Your task to perform on an android device: Show me productivity apps on the Play Store Image 0: 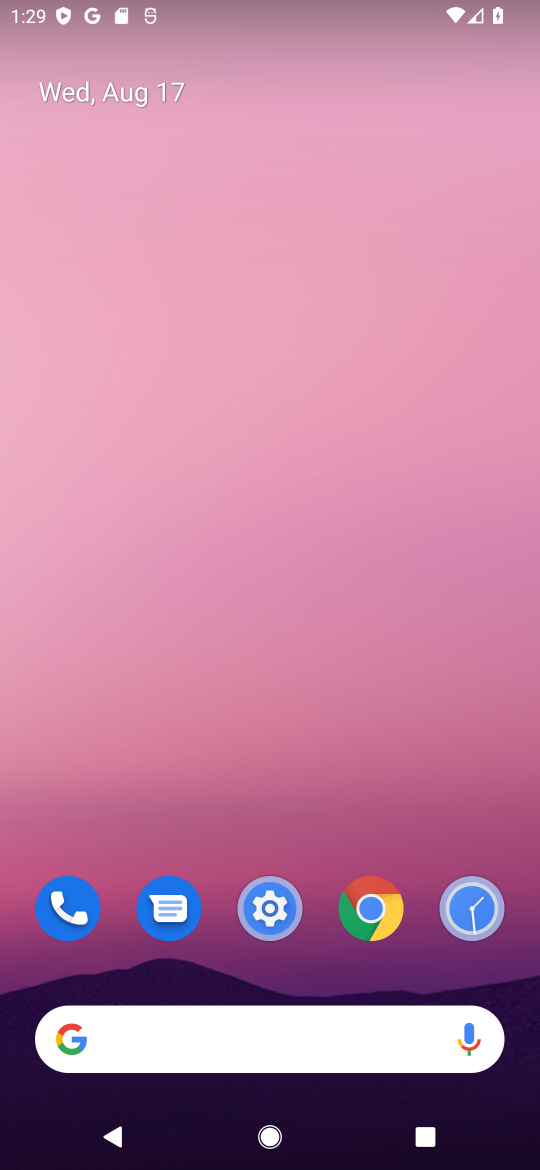
Step 0: press home button
Your task to perform on an android device: Show me productivity apps on the Play Store Image 1: 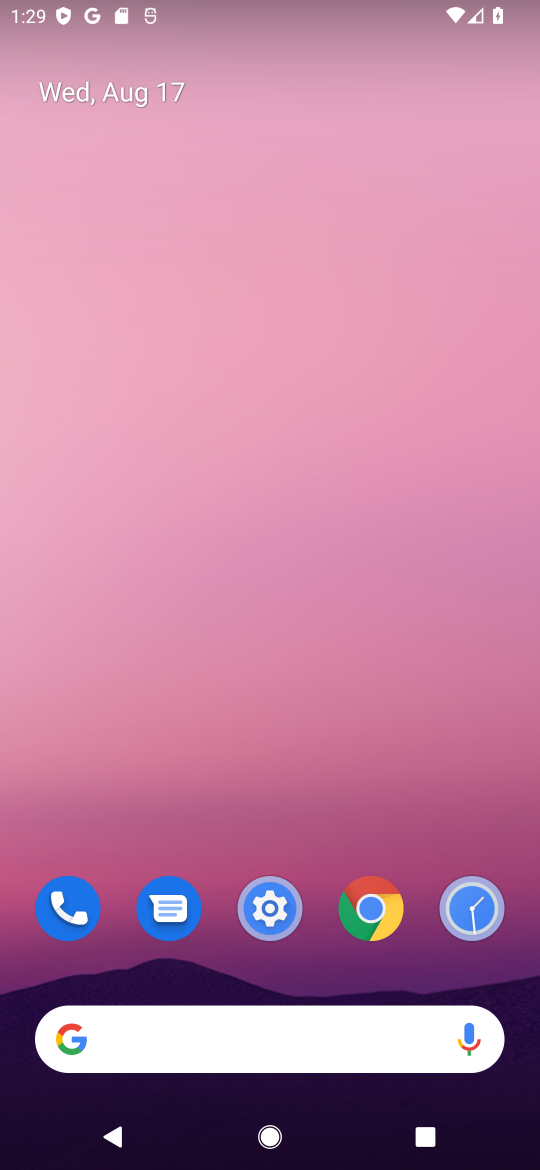
Step 1: drag from (309, 1000) to (464, 24)
Your task to perform on an android device: Show me productivity apps on the Play Store Image 2: 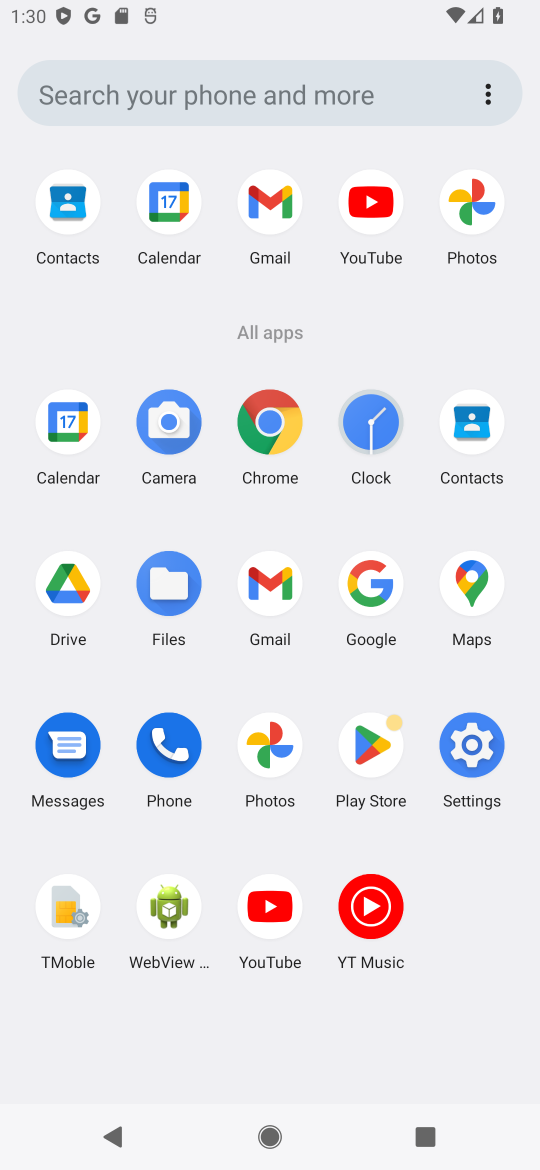
Step 2: click (371, 754)
Your task to perform on an android device: Show me productivity apps on the Play Store Image 3: 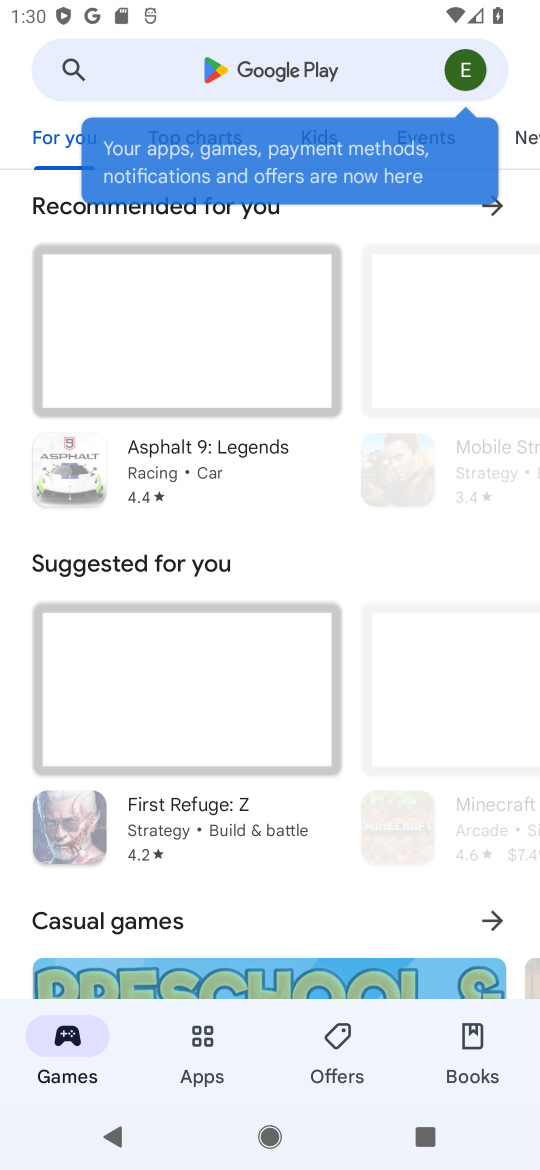
Step 3: click (205, 1053)
Your task to perform on an android device: Show me productivity apps on the Play Store Image 4: 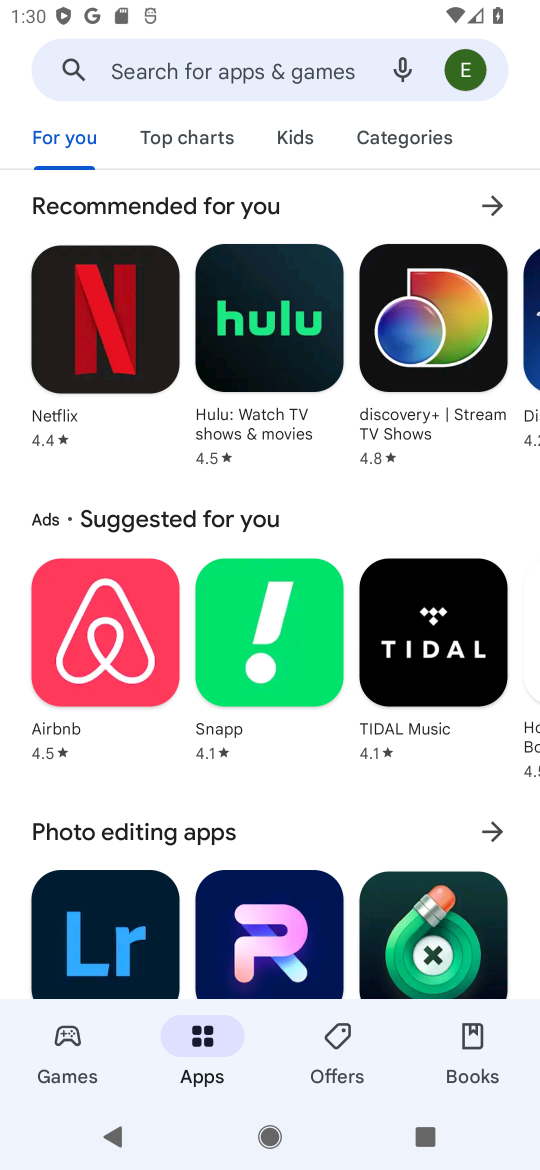
Step 4: click (391, 144)
Your task to perform on an android device: Show me productivity apps on the Play Store Image 5: 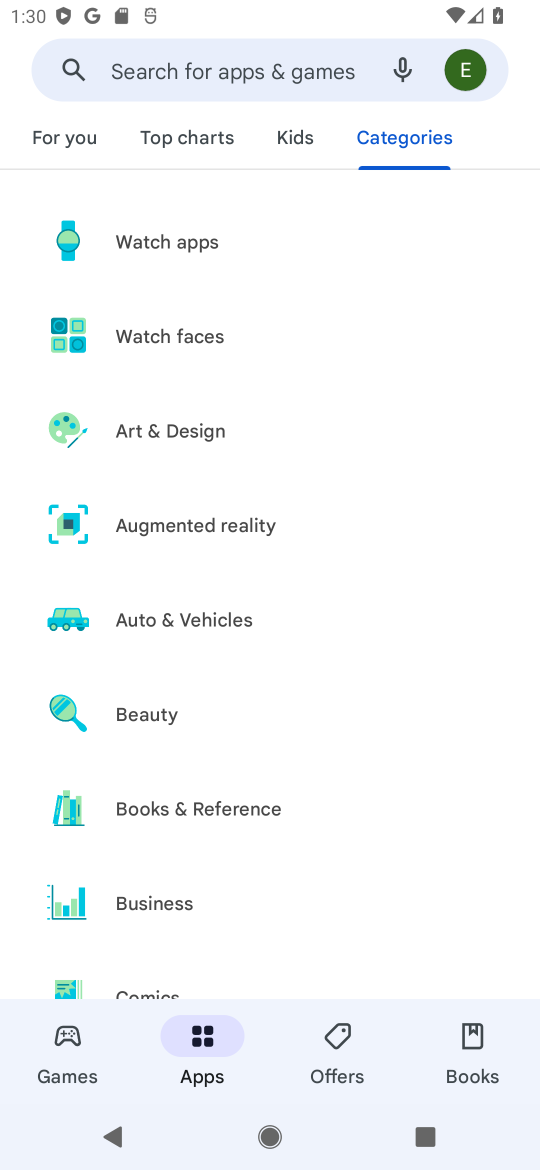
Step 5: drag from (392, 863) to (414, 0)
Your task to perform on an android device: Show me productivity apps on the Play Store Image 6: 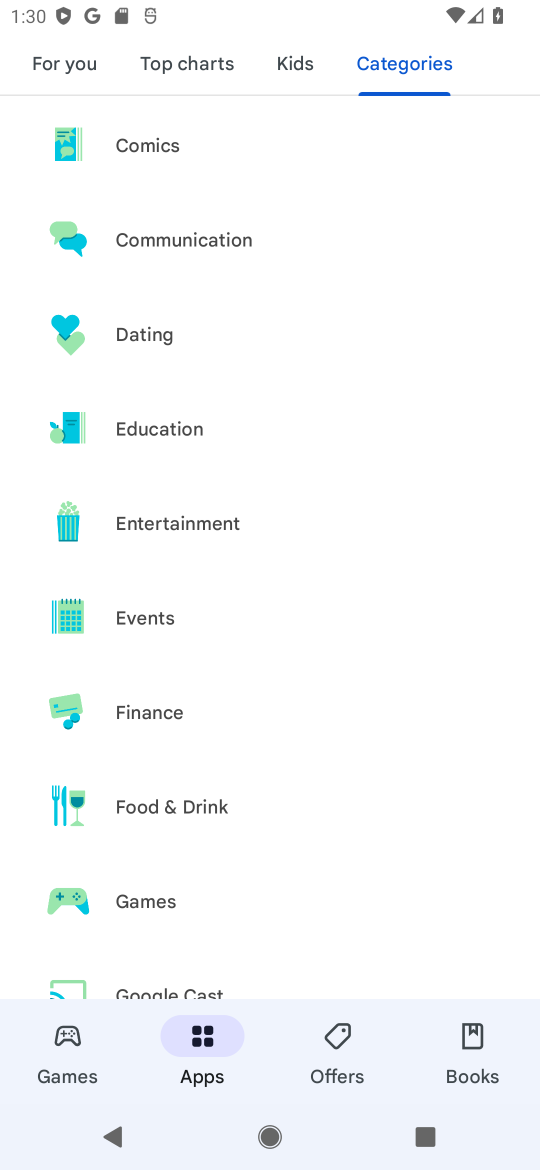
Step 6: drag from (357, 889) to (404, 26)
Your task to perform on an android device: Show me productivity apps on the Play Store Image 7: 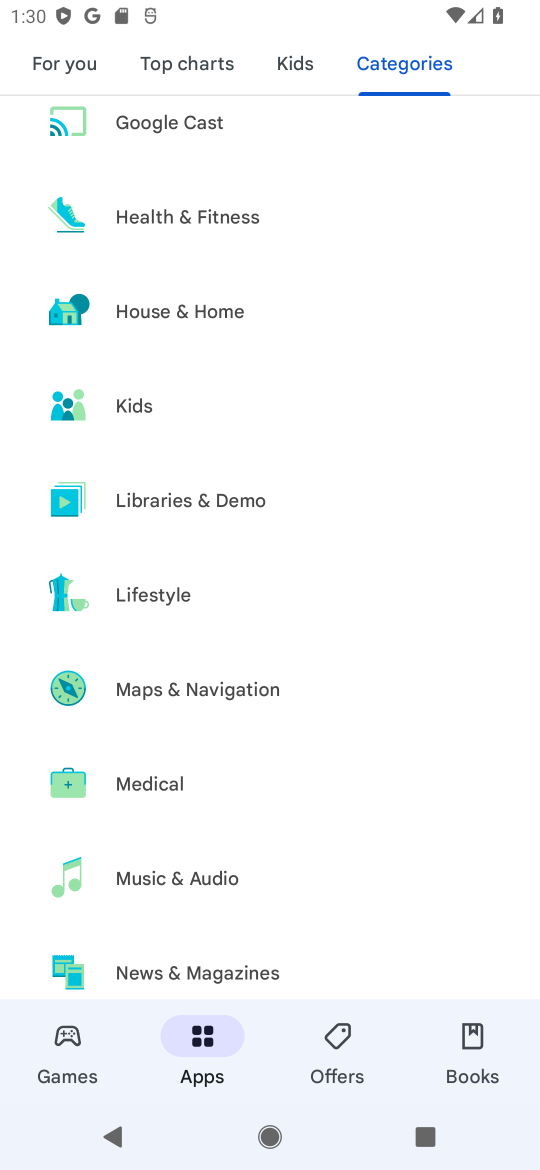
Step 7: drag from (422, 894) to (516, 53)
Your task to perform on an android device: Show me productivity apps on the Play Store Image 8: 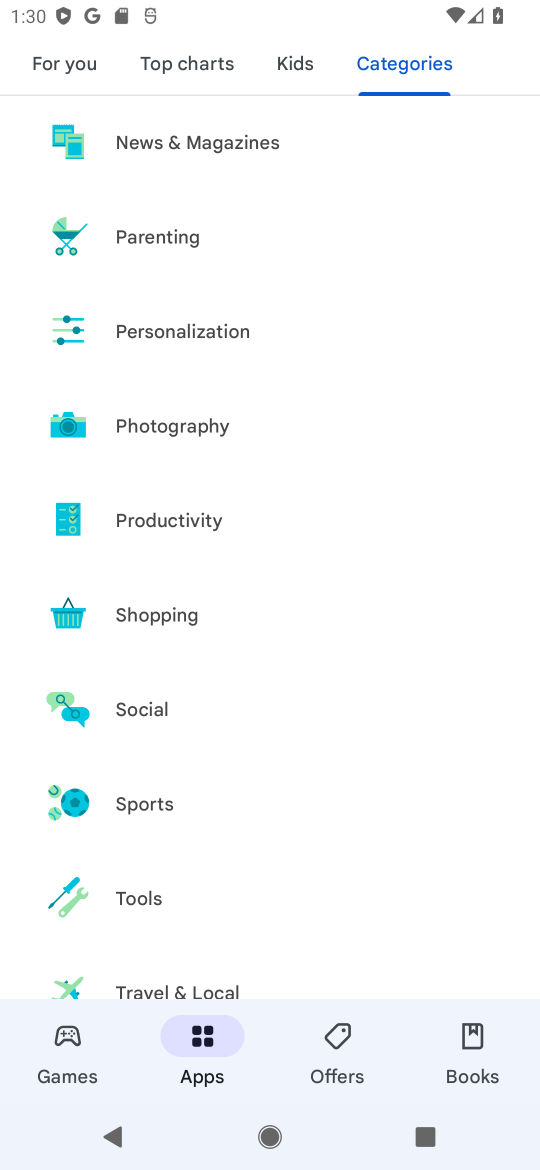
Step 8: click (148, 526)
Your task to perform on an android device: Show me productivity apps on the Play Store Image 9: 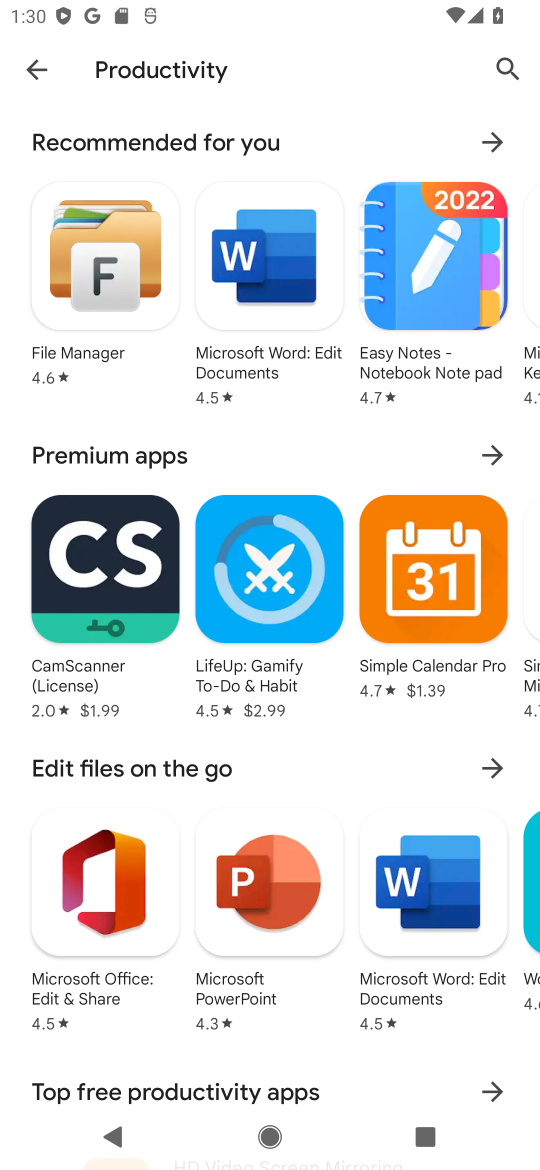
Step 9: task complete